Your task to perform on an android device: turn notification dots off Image 0: 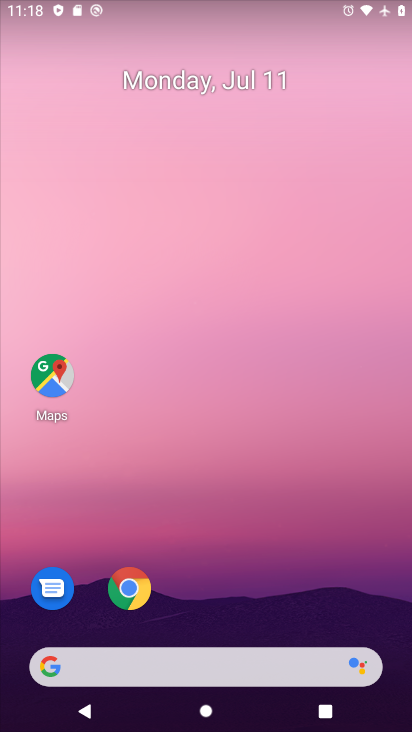
Step 0: drag from (214, 661) to (247, 45)
Your task to perform on an android device: turn notification dots off Image 1: 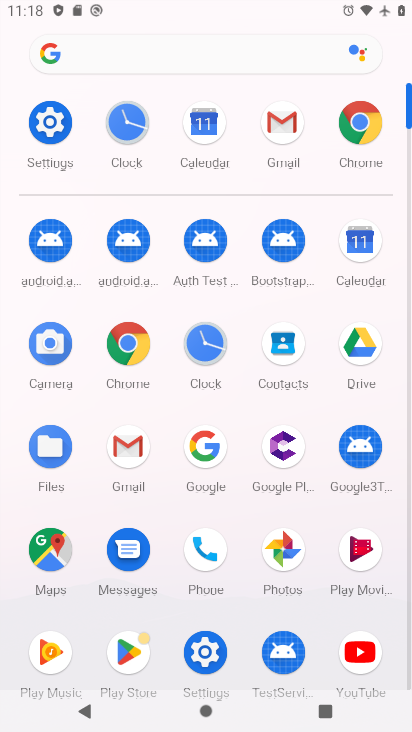
Step 1: click (44, 123)
Your task to perform on an android device: turn notification dots off Image 2: 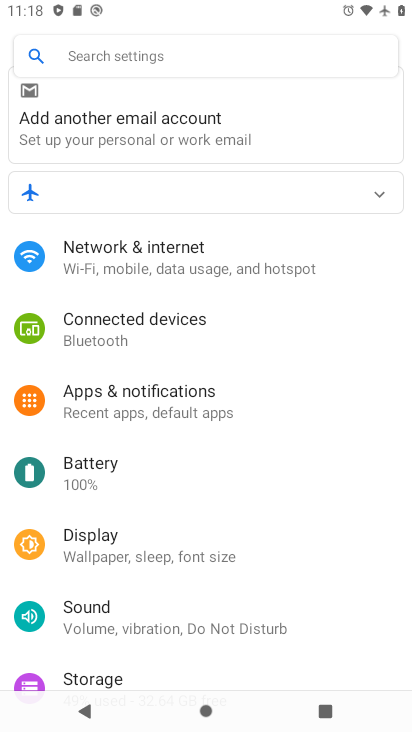
Step 2: click (144, 398)
Your task to perform on an android device: turn notification dots off Image 3: 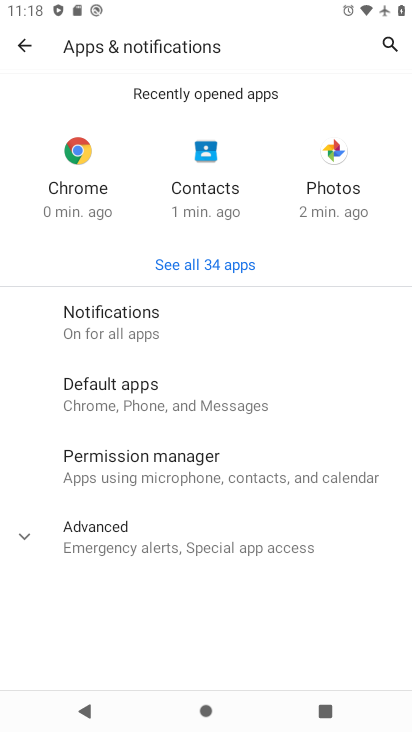
Step 3: click (151, 329)
Your task to perform on an android device: turn notification dots off Image 4: 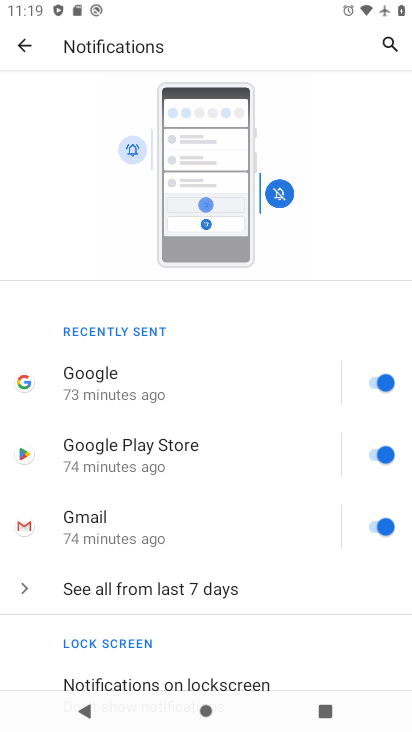
Step 4: drag from (188, 622) to (236, 282)
Your task to perform on an android device: turn notification dots off Image 5: 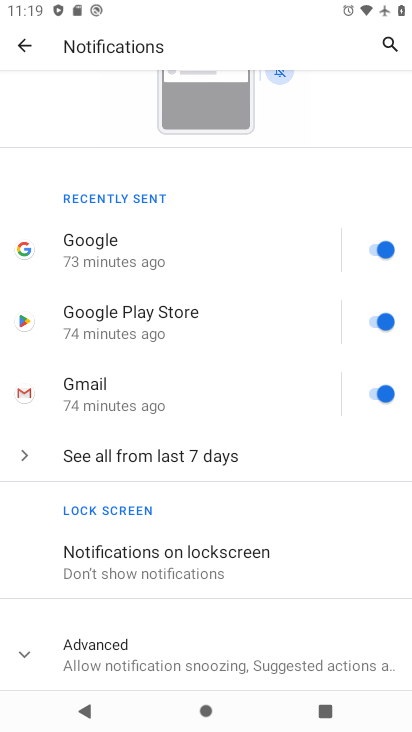
Step 5: click (165, 658)
Your task to perform on an android device: turn notification dots off Image 6: 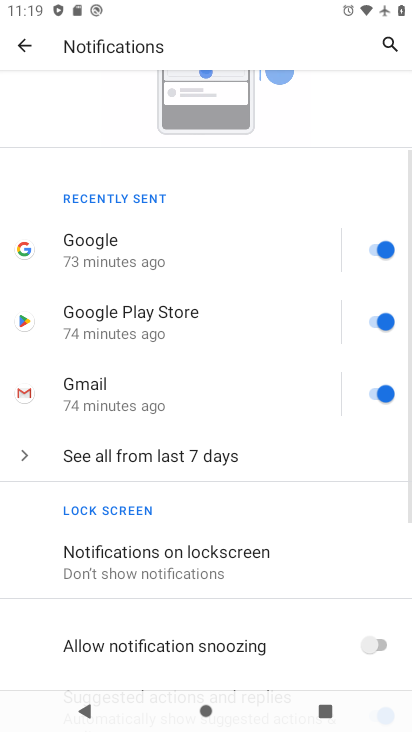
Step 6: drag from (215, 572) to (329, 120)
Your task to perform on an android device: turn notification dots off Image 7: 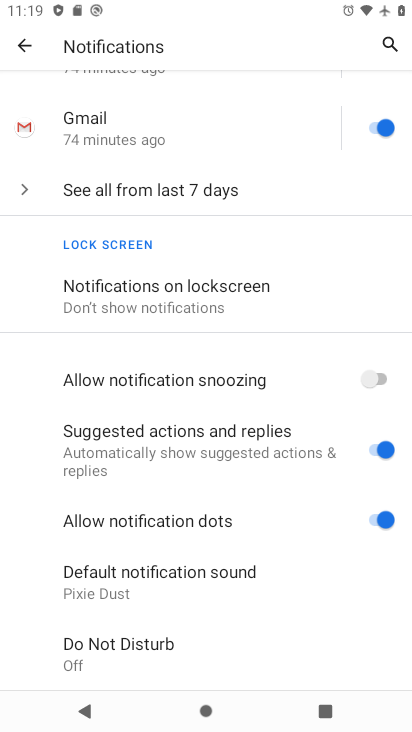
Step 7: click (377, 513)
Your task to perform on an android device: turn notification dots off Image 8: 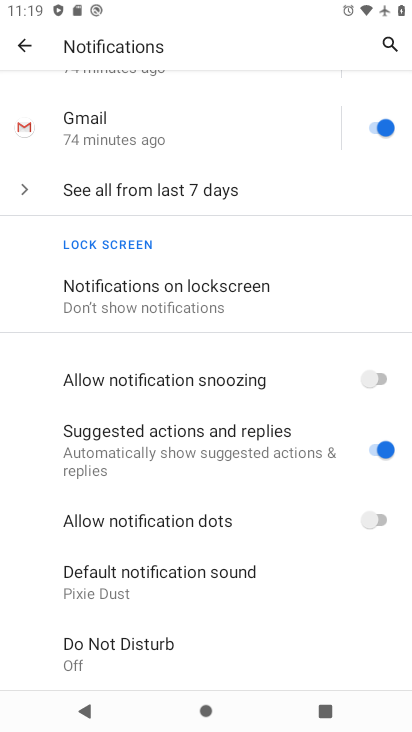
Step 8: task complete